Your task to perform on an android device: open app "Pandora - Music & Podcasts" Image 0: 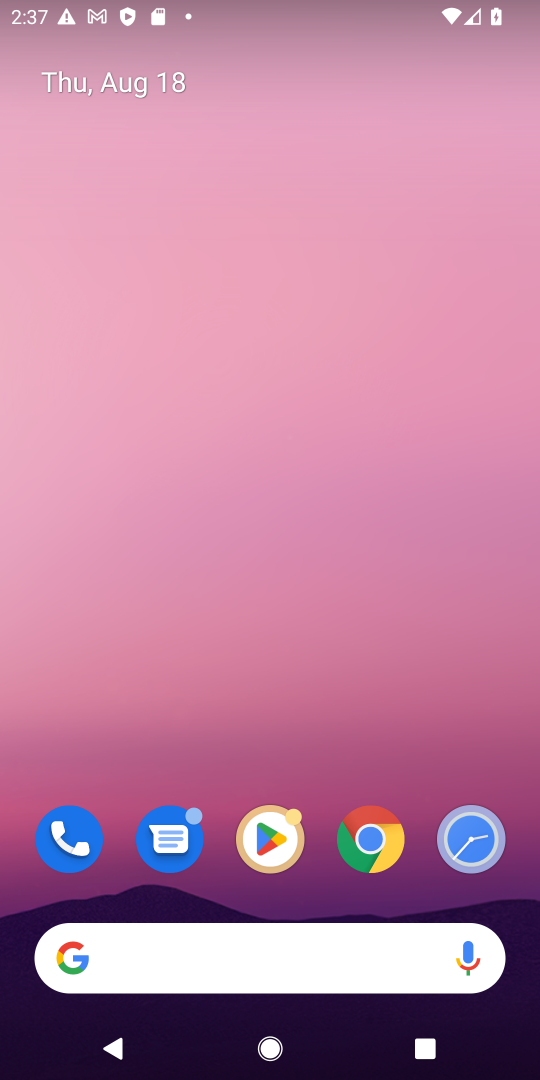
Step 0: drag from (278, 897) to (158, 104)
Your task to perform on an android device: open app "Pandora - Music & Podcasts" Image 1: 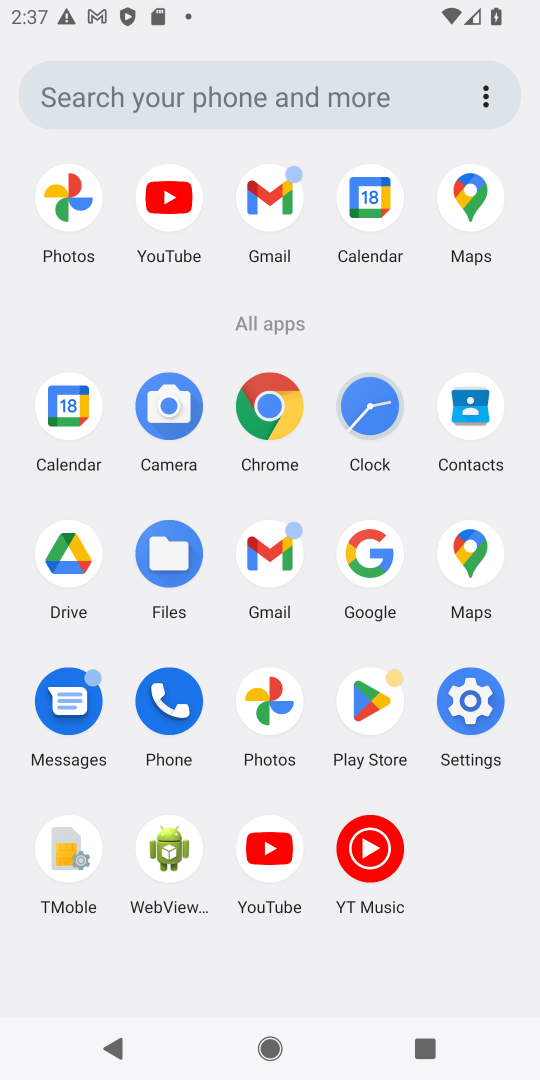
Step 1: click (355, 711)
Your task to perform on an android device: open app "Pandora - Music & Podcasts" Image 2: 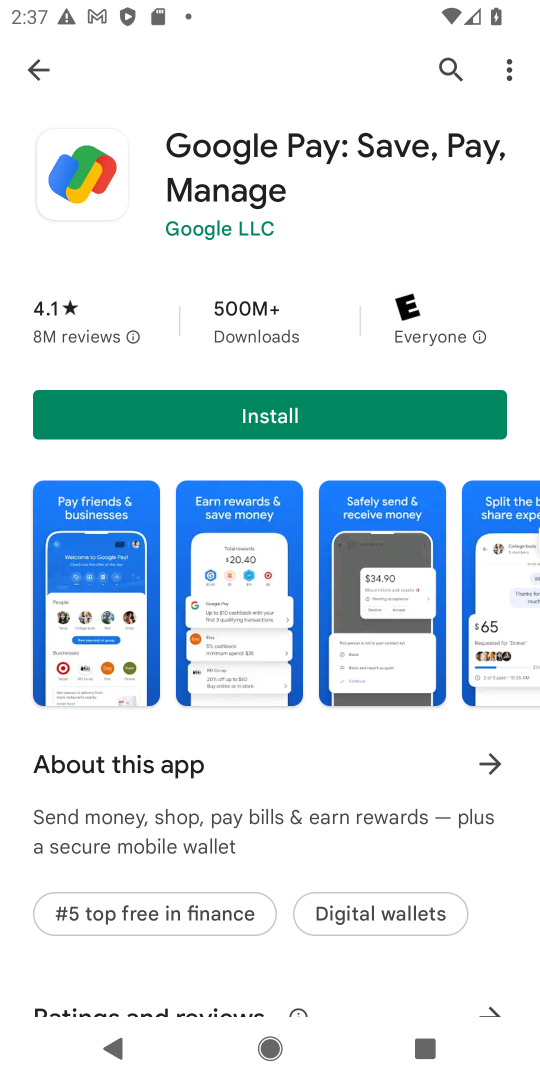
Step 2: click (47, 78)
Your task to perform on an android device: open app "Pandora - Music & Podcasts" Image 3: 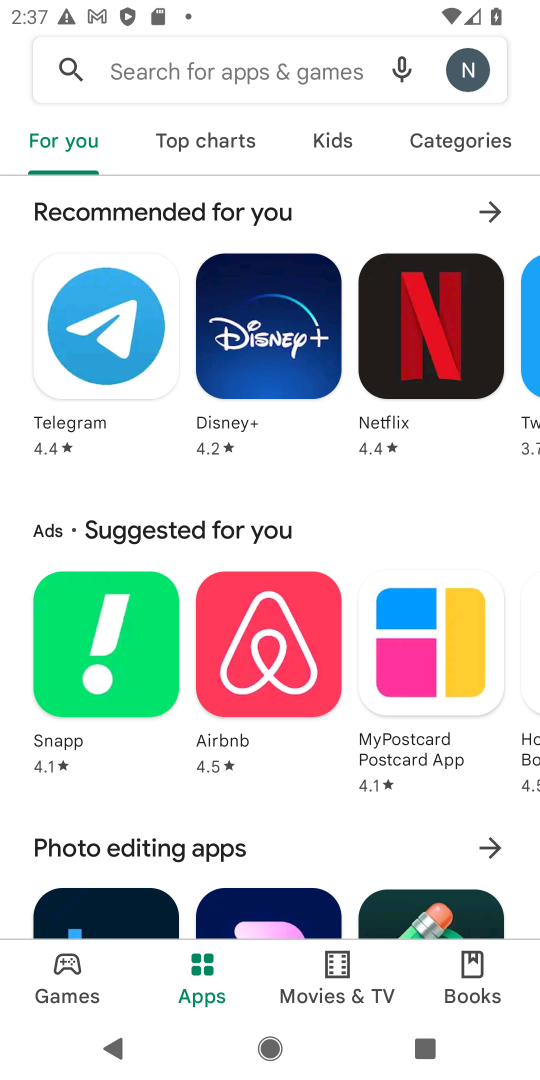
Step 3: click (159, 86)
Your task to perform on an android device: open app "Pandora - Music & Podcasts" Image 4: 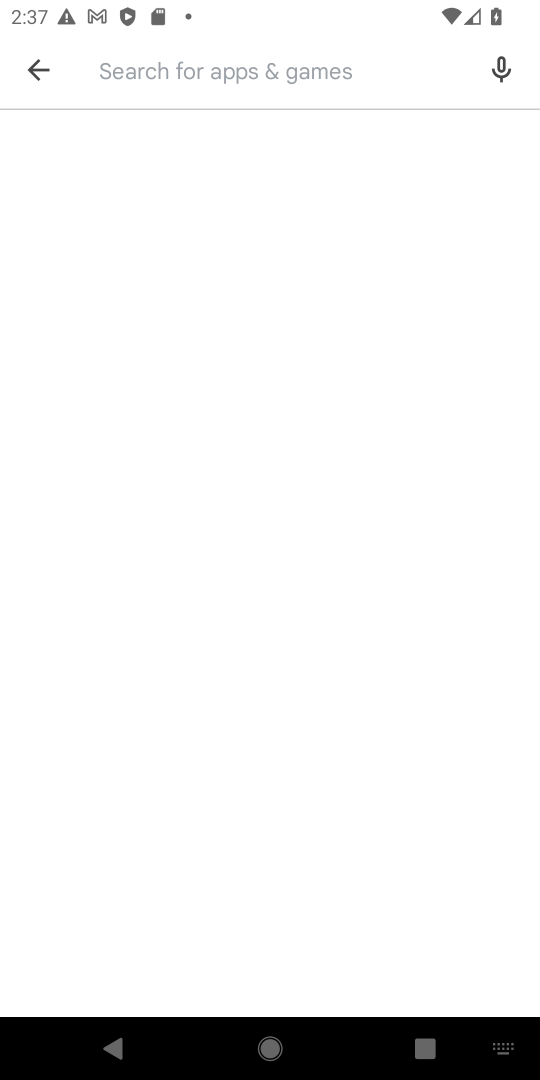
Step 4: type "Pandora - Music & Podcast"
Your task to perform on an android device: open app "Pandora - Music & Podcasts" Image 5: 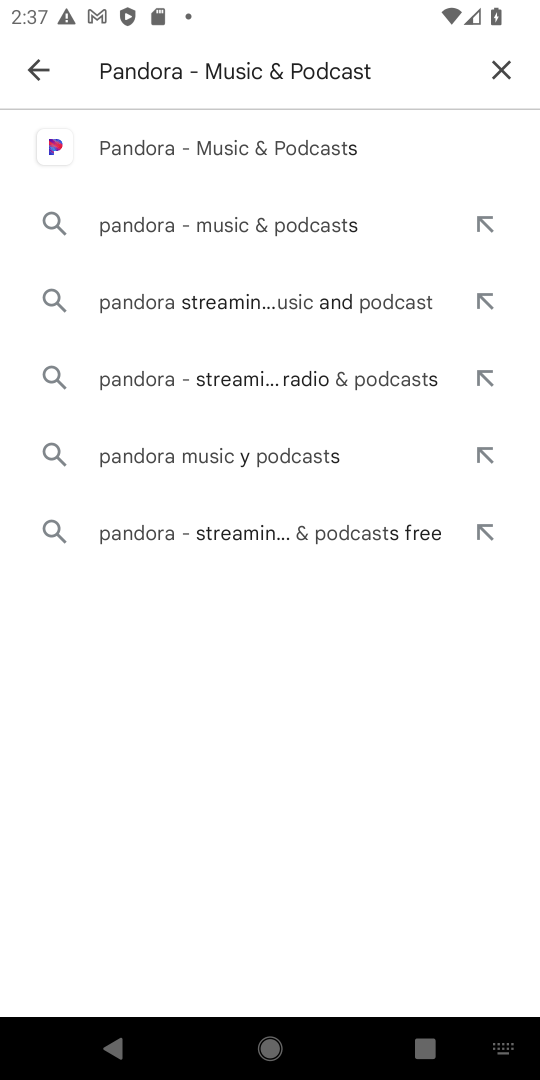
Step 5: click (157, 146)
Your task to perform on an android device: open app "Pandora - Music & Podcasts" Image 6: 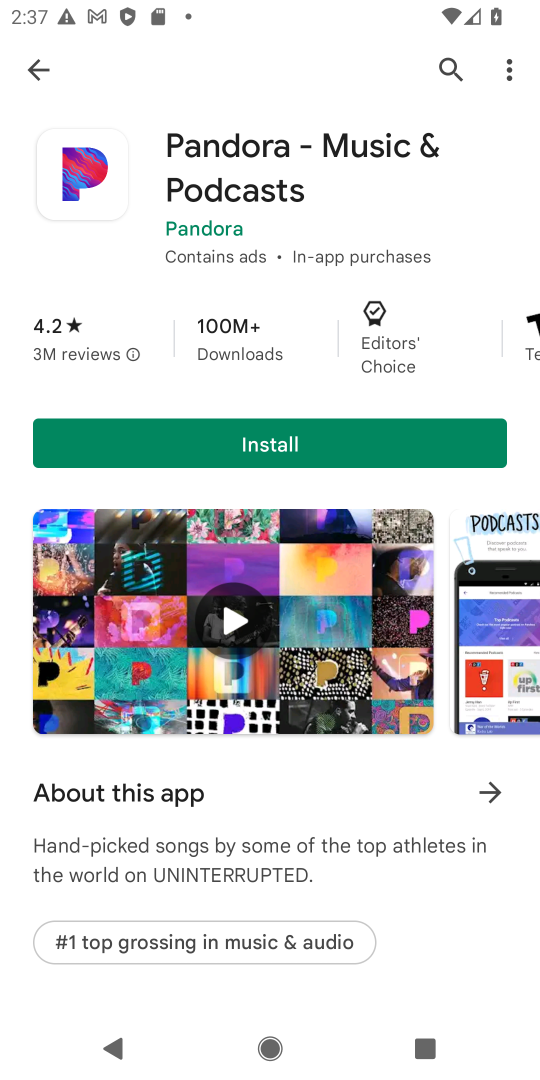
Step 6: task complete